Your task to perform on an android device: find photos in the google photos app Image 0: 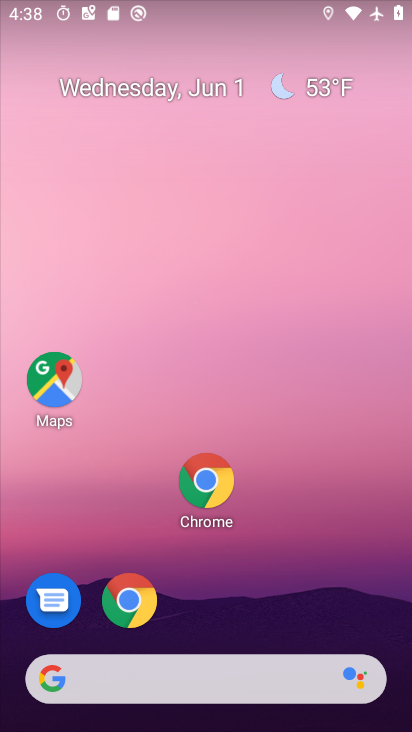
Step 0: drag from (257, 704) to (149, 207)
Your task to perform on an android device: find photos in the google photos app Image 1: 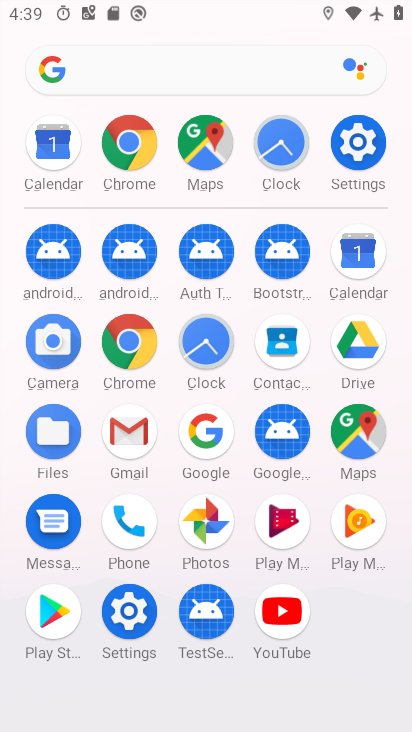
Step 1: click (209, 529)
Your task to perform on an android device: find photos in the google photos app Image 2: 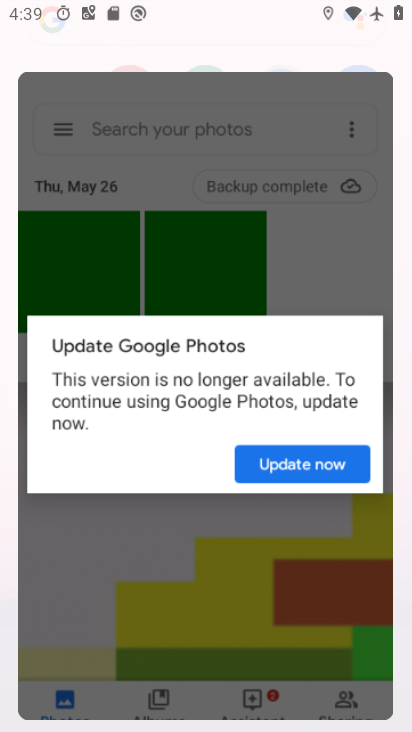
Step 2: click (205, 529)
Your task to perform on an android device: find photos in the google photos app Image 3: 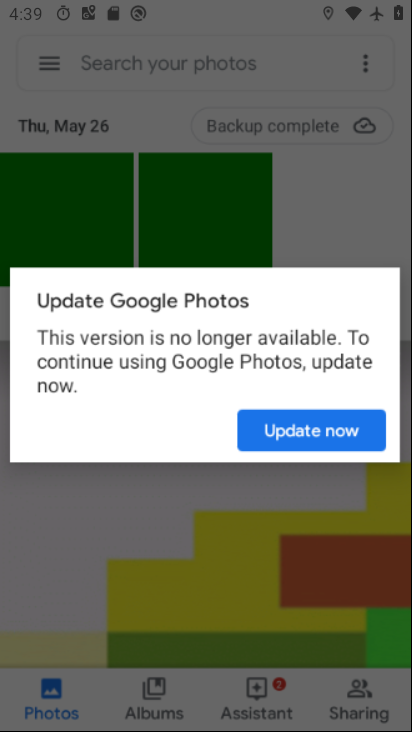
Step 3: click (210, 527)
Your task to perform on an android device: find photos in the google photos app Image 4: 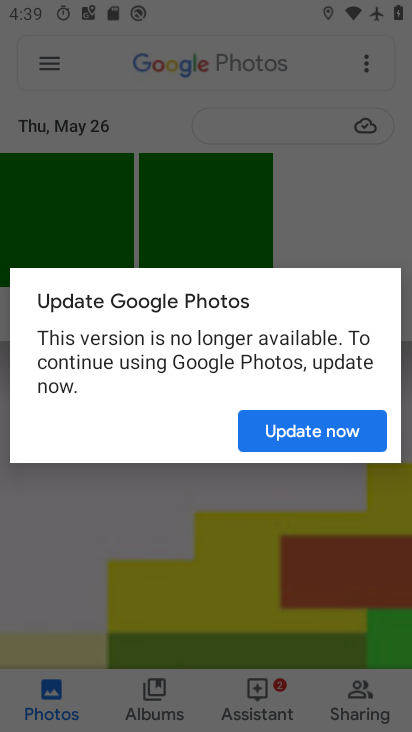
Step 4: click (209, 527)
Your task to perform on an android device: find photos in the google photos app Image 5: 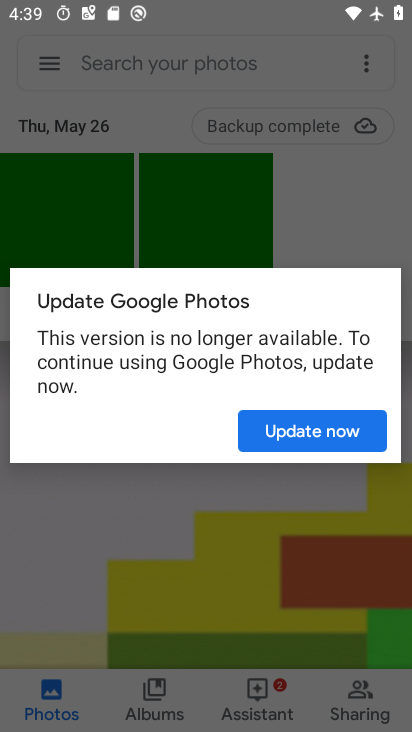
Step 5: click (315, 440)
Your task to perform on an android device: find photos in the google photos app Image 6: 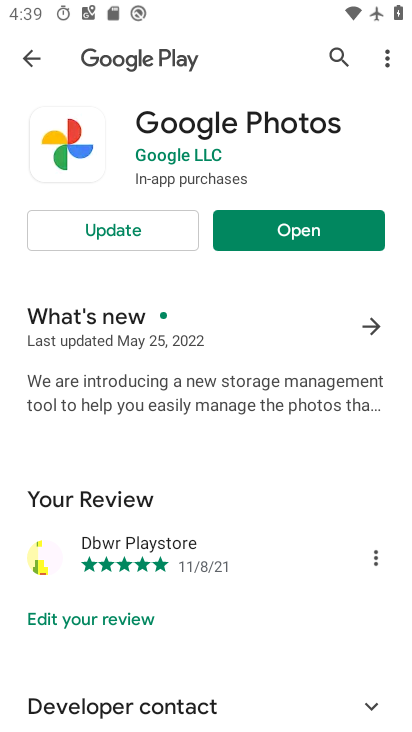
Step 6: click (111, 231)
Your task to perform on an android device: find photos in the google photos app Image 7: 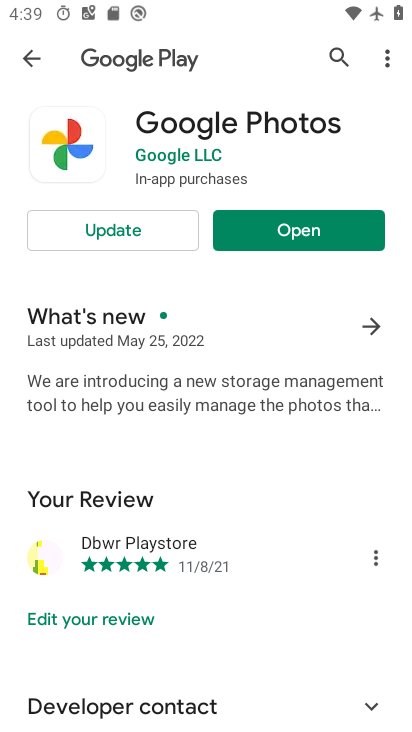
Step 7: click (111, 231)
Your task to perform on an android device: find photos in the google photos app Image 8: 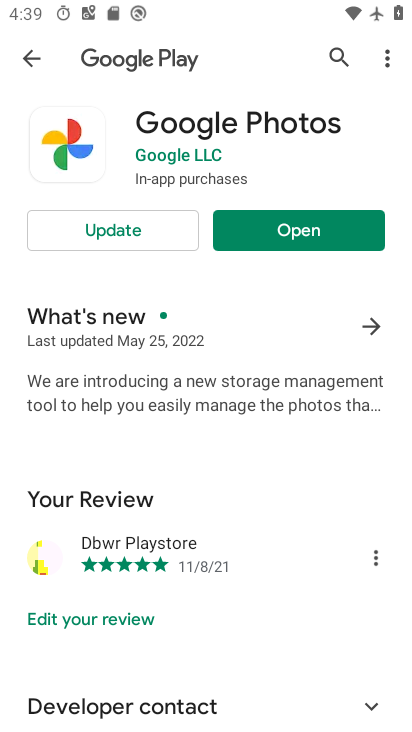
Step 8: click (116, 237)
Your task to perform on an android device: find photos in the google photos app Image 9: 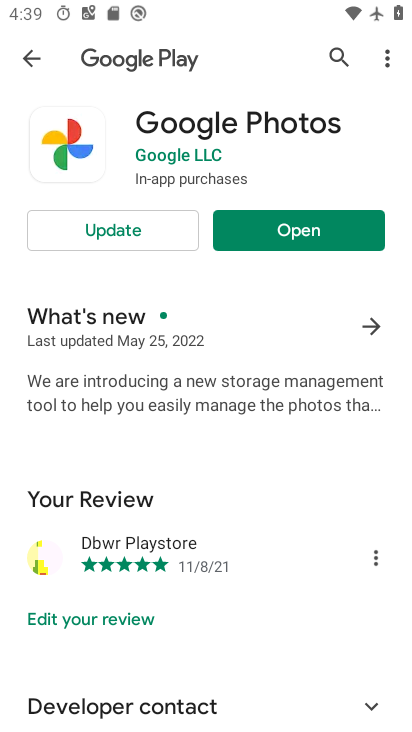
Step 9: click (116, 237)
Your task to perform on an android device: find photos in the google photos app Image 10: 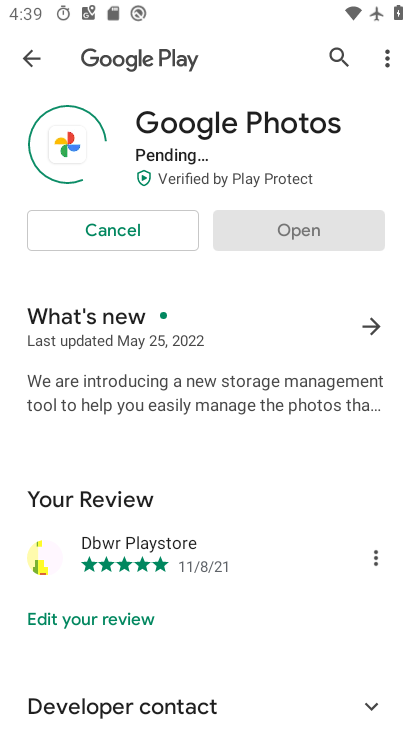
Step 10: click (123, 241)
Your task to perform on an android device: find photos in the google photos app Image 11: 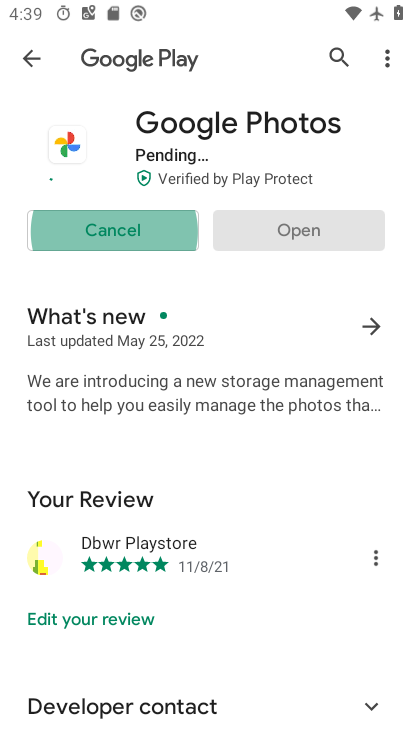
Step 11: click (132, 231)
Your task to perform on an android device: find photos in the google photos app Image 12: 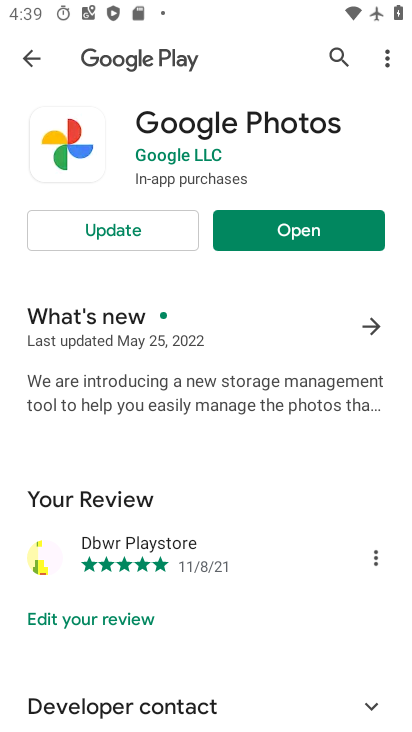
Step 12: click (318, 229)
Your task to perform on an android device: find photos in the google photos app Image 13: 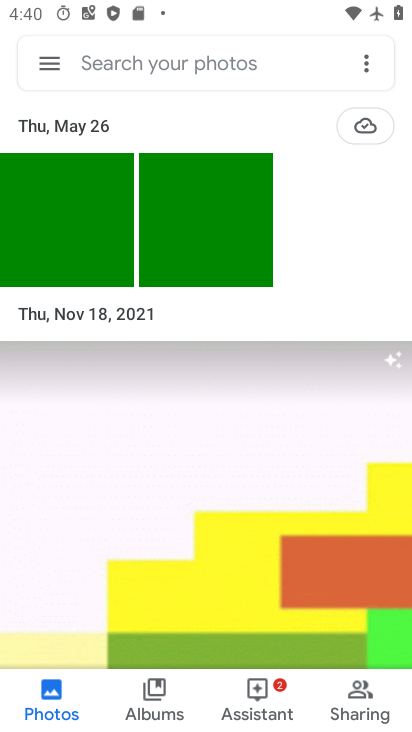
Step 13: task complete